Your task to perform on an android device: open app "Microsoft Excel" Image 0: 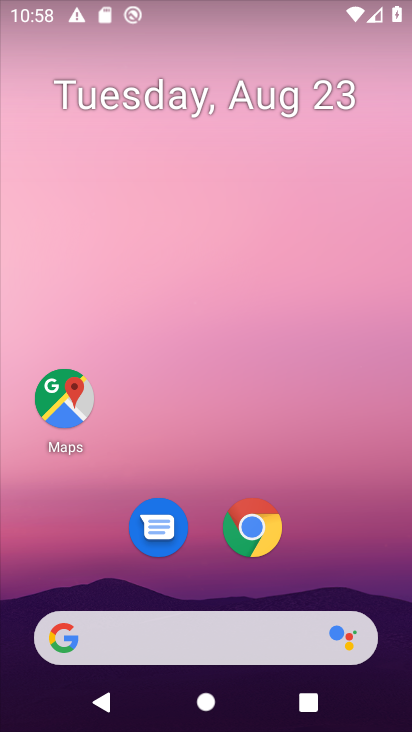
Step 0: drag from (205, 532) to (268, 83)
Your task to perform on an android device: open app "Microsoft Excel" Image 1: 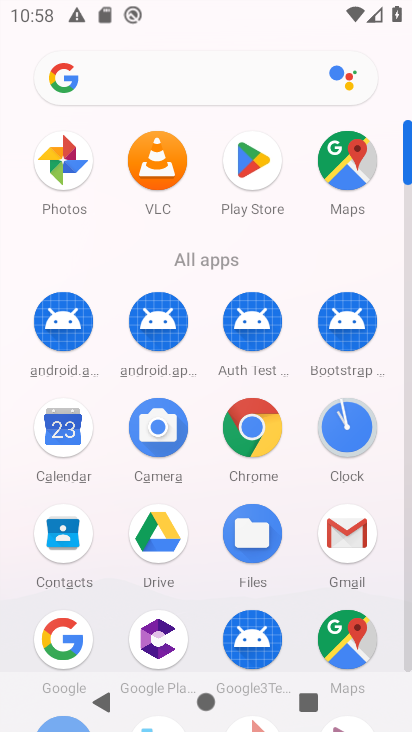
Step 1: click (232, 181)
Your task to perform on an android device: open app "Microsoft Excel" Image 2: 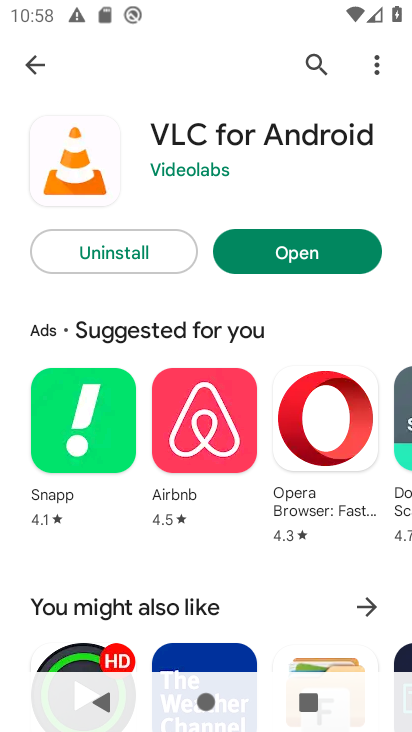
Step 2: click (318, 67)
Your task to perform on an android device: open app "Microsoft Excel" Image 3: 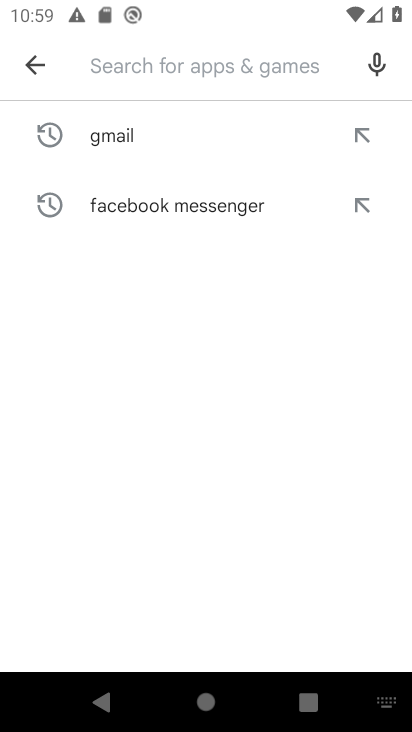
Step 3: type "Microsoft Excel"
Your task to perform on an android device: open app "Microsoft Excel" Image 4: 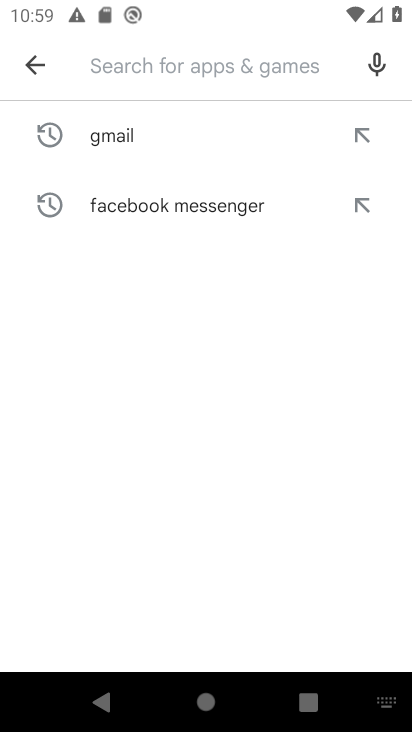
Step 4: click (202, 545)
Your task to perform on an android device: open app "Microsoft Excel" Image 5: 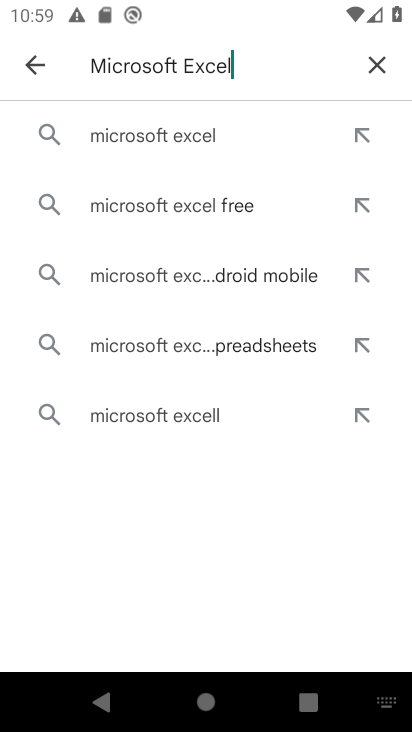
Step 5: click (225, 138)
Your task to perform on an android device: open app "Microsoft Excel" Image 6: 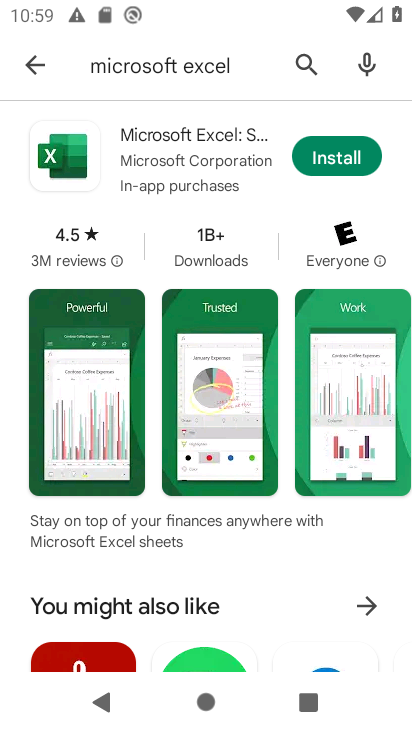
Step 6: task complete